Your task to perform on an android device: Clear the shopping cart on target. Image 0: 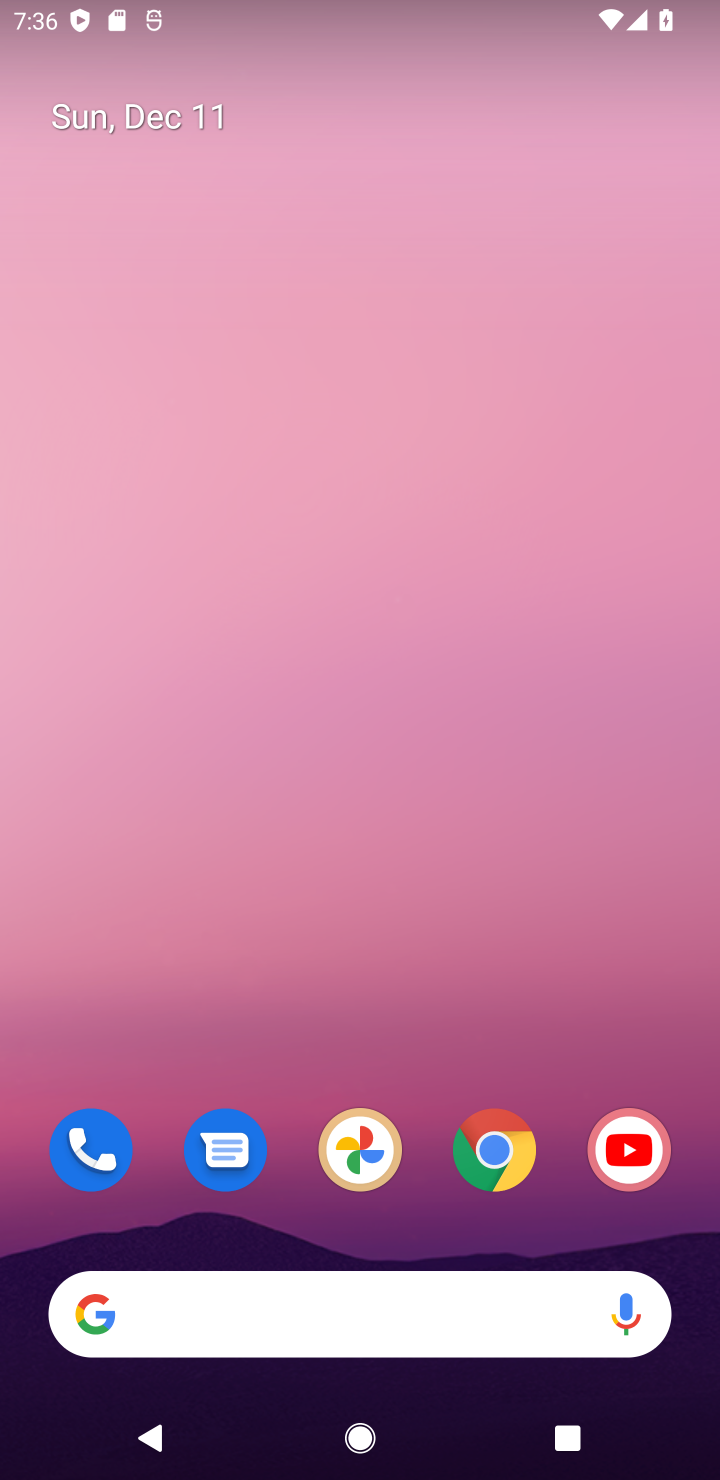
Step 0: click (499, 1149)
Your task to perform on an android device: Clear the shopping cart on target. Image 1: 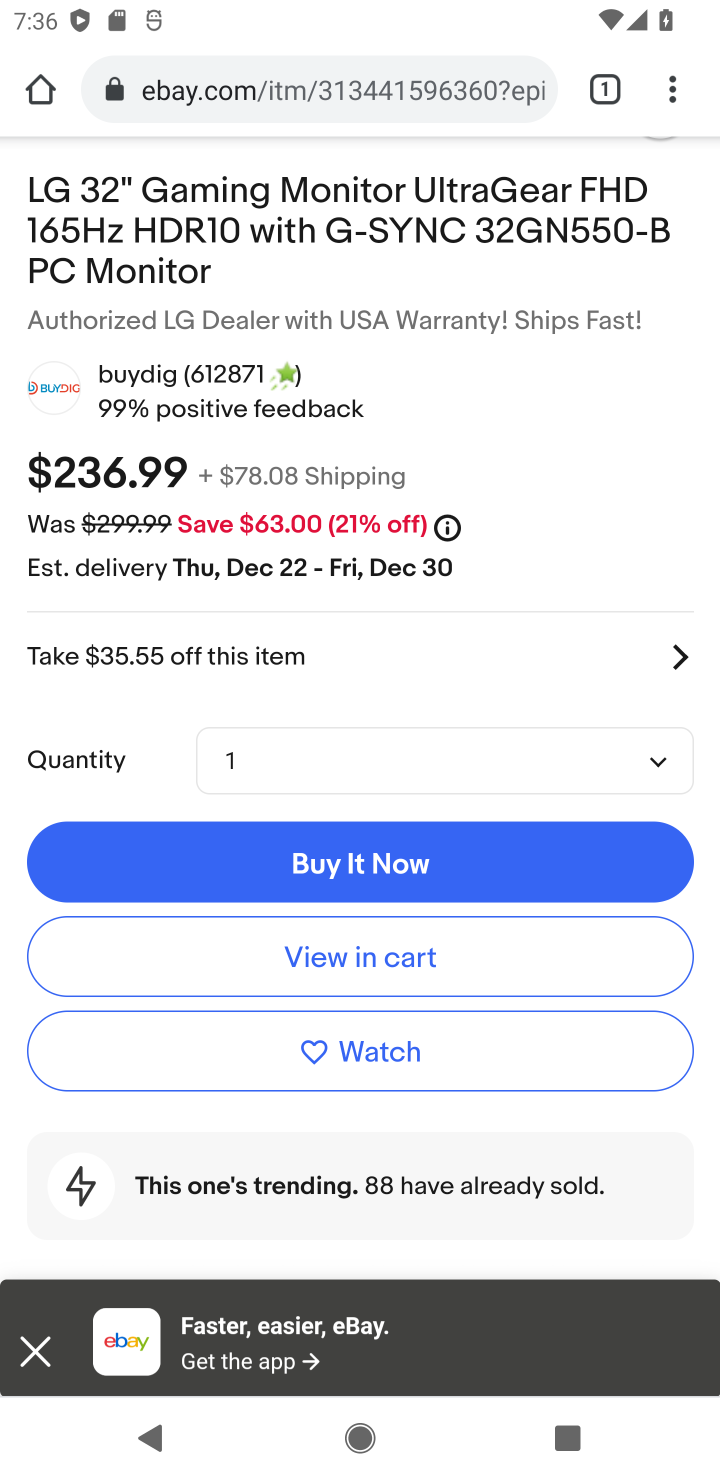
Step 1: click (269, 80)
Your task to perform on an android device: Clear the shopping cart on target. Image 2: 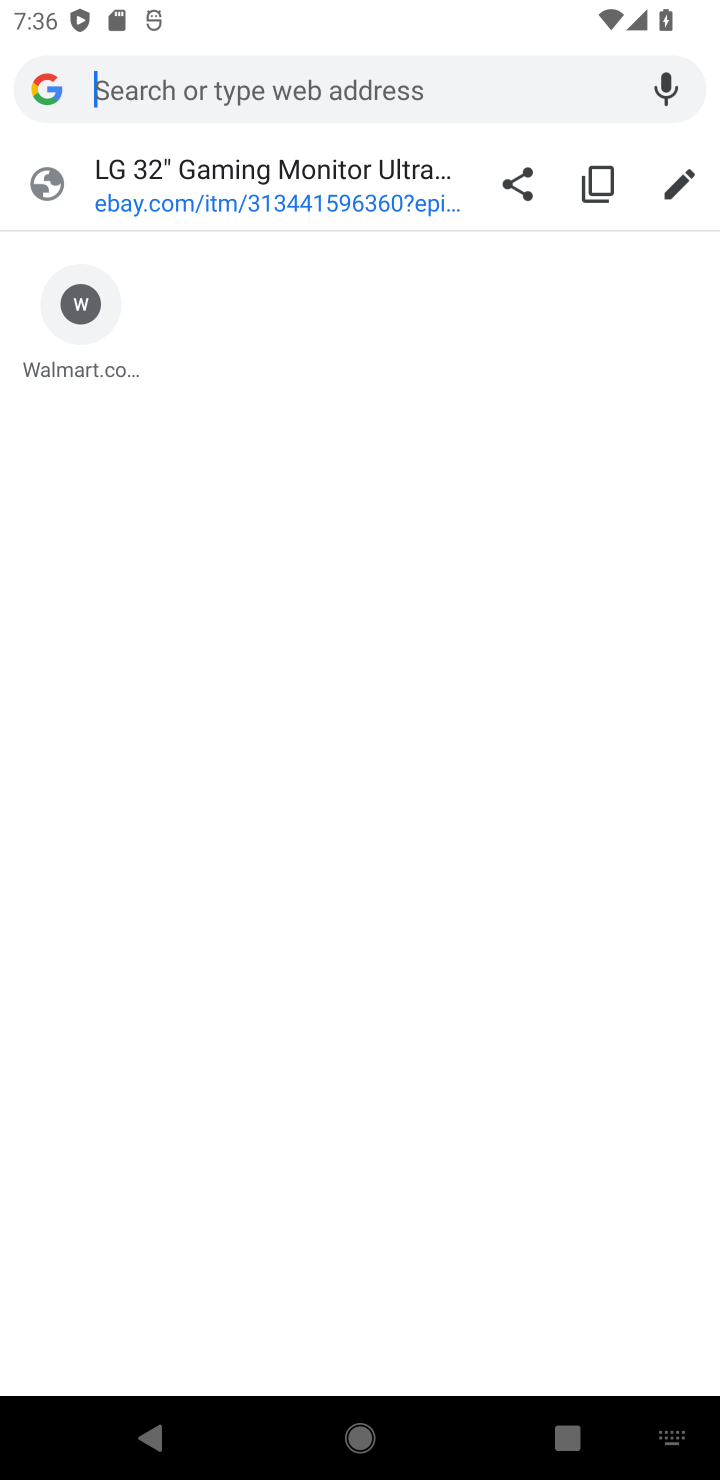
Step 2: type "target"
Your task to perform on an android device: Clear the shopping cart on target. Image 3: 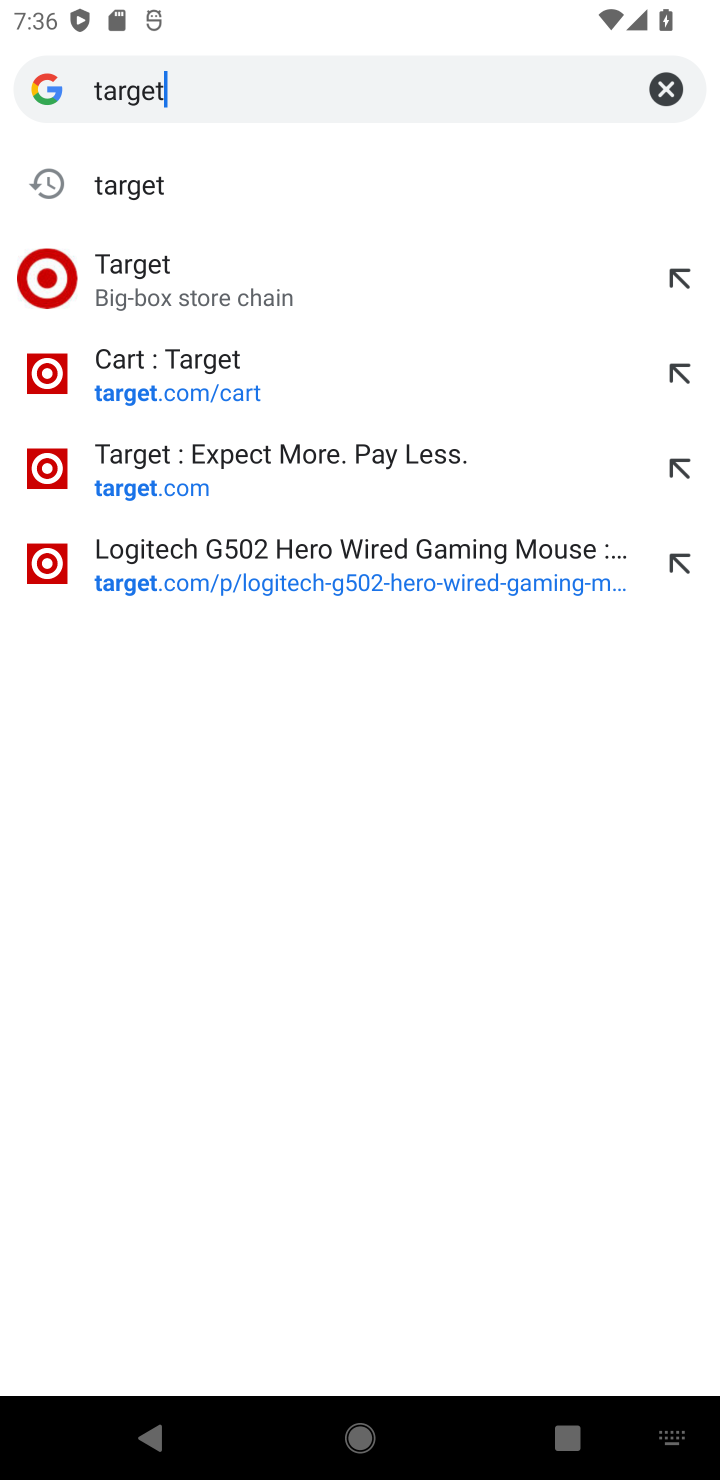
Step 3: click (127, 178)
Your task to perform on an android device: Clear the shopping cart on target. Image 4: 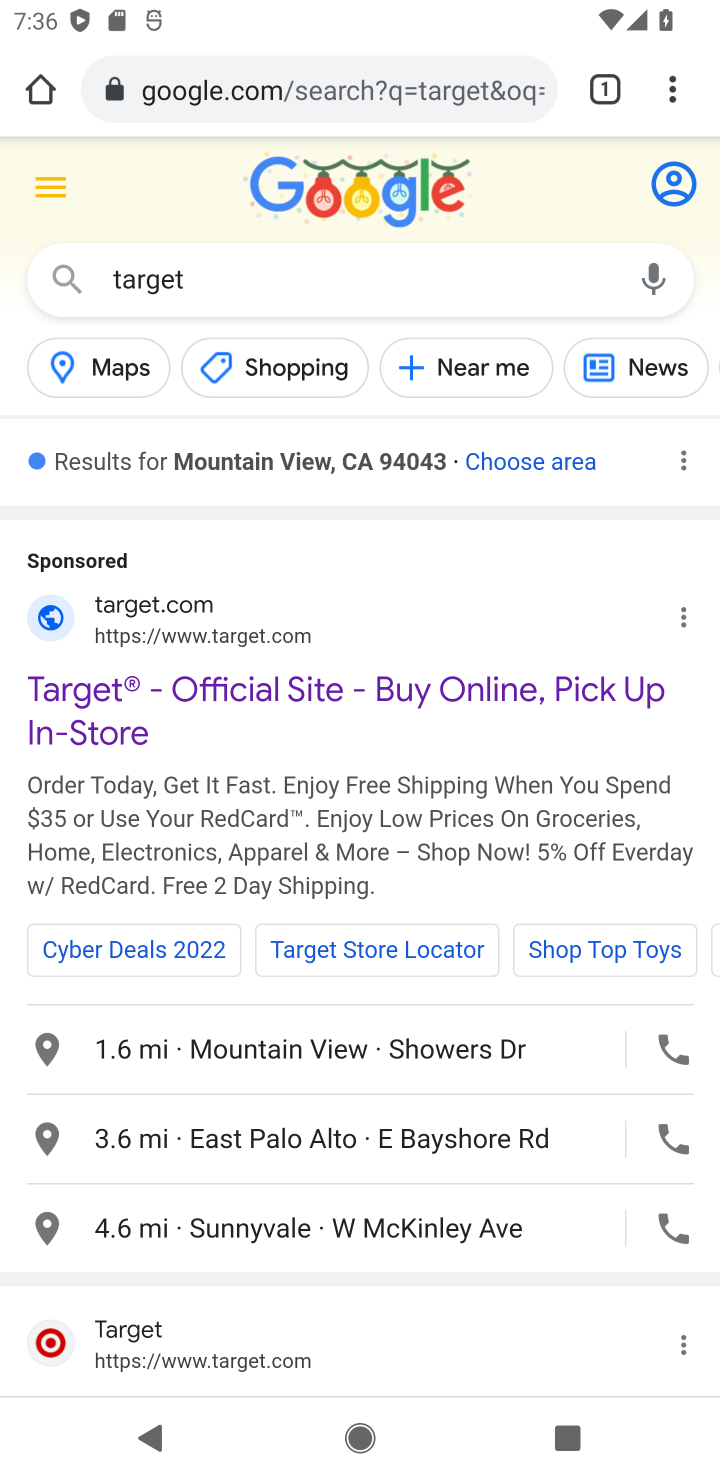
Step 4: click (263, 1360)
Your task to perform on an android device: Clear the shopping cart on target. Image 5: 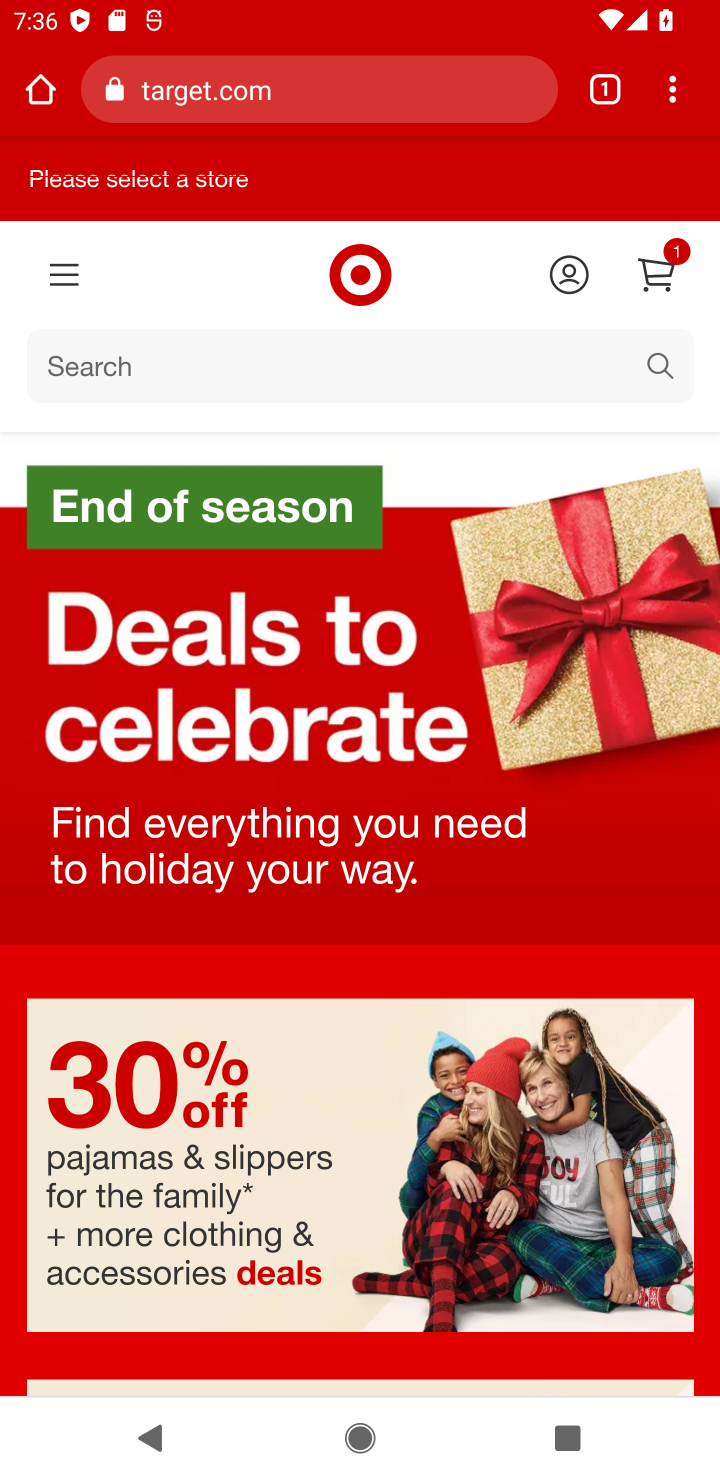
Step 5: click (660, 277)
Your task to perform on an android device: Clear the shopping cart on target. Image 6: 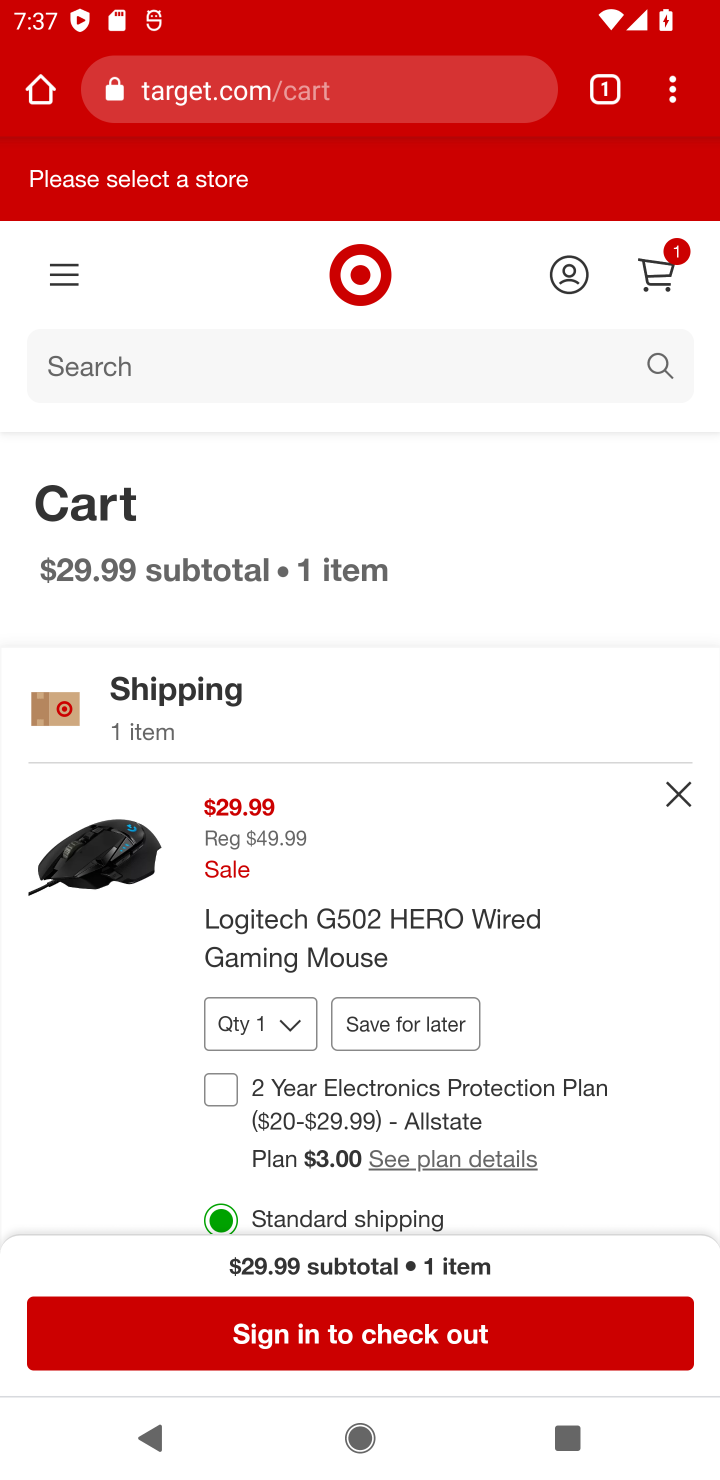
Step 6: click (454, 1028)
Your task to perform on an android device: Clear the shopping cart on target. Image 7: 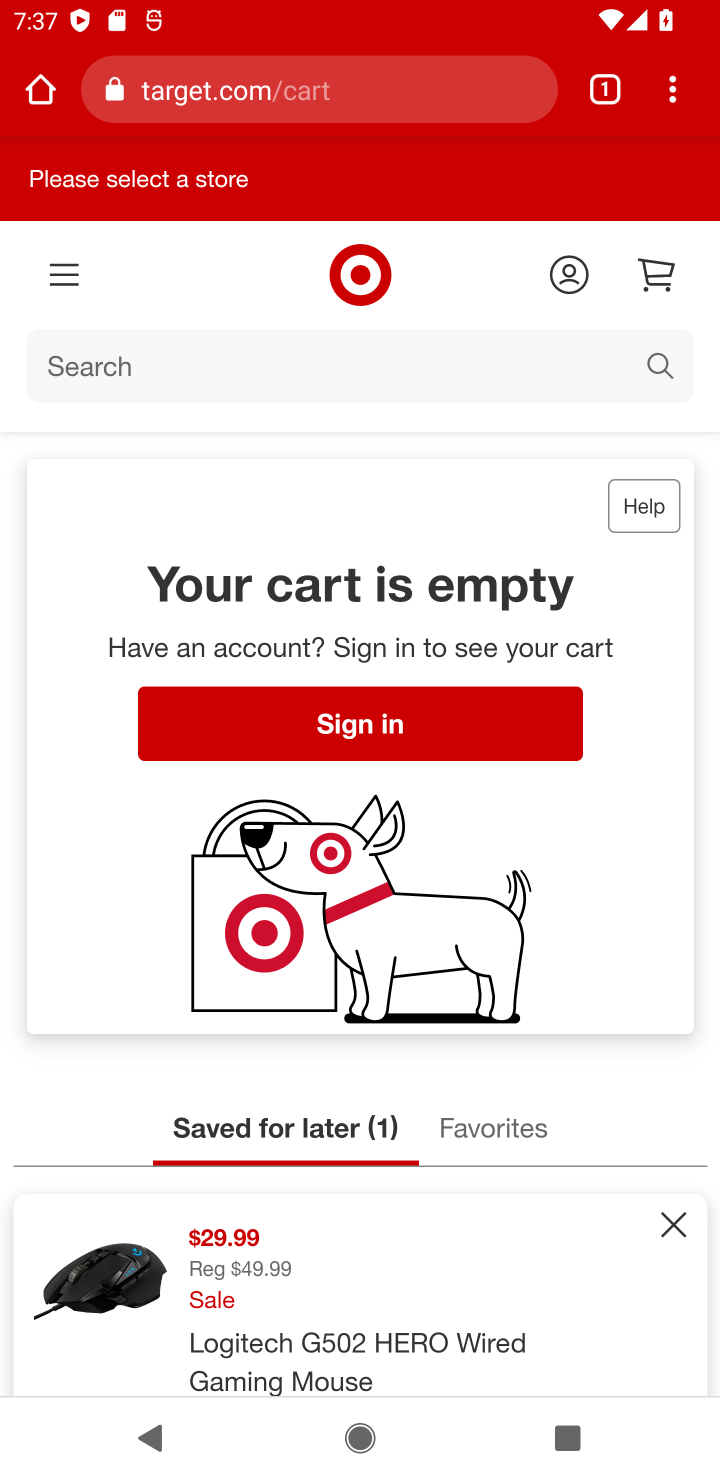
Step 7: task complete